Your task to perform on an android device: Go to Yahoo.com Image 0: 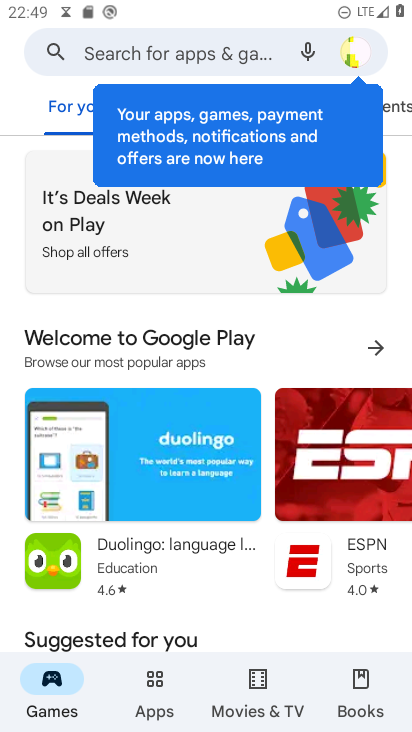
Step 0: press home button
Your task to perform on an android device: Go to Yahoo.com Image 1: 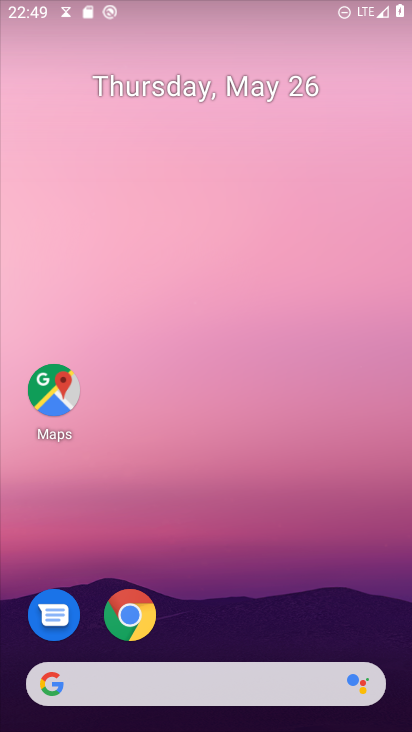
Step 1: click (242, 326)
Your task to perform on an android device: Go to Yahoo.com Image 2: 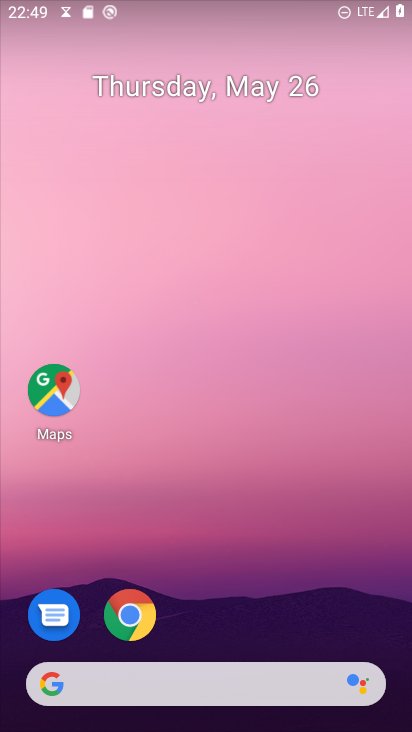
Step 2: drag from (224, 263) to (204, 337)
Your task to perform on an android device: Go to Yahoo.com Image 3: 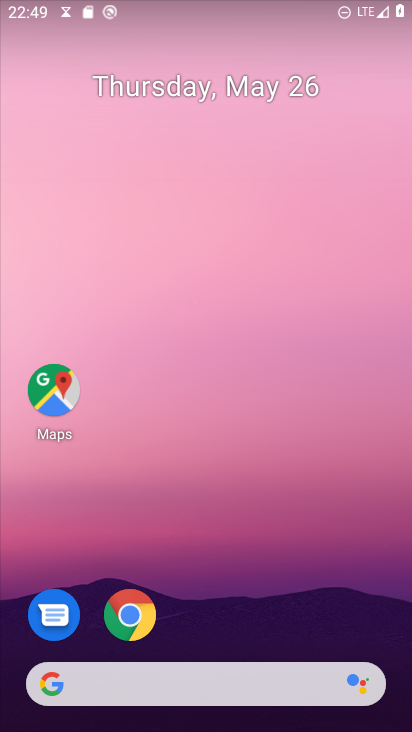
Step 3: drag from (162, 644) to (174, 452)
Your task to perform on an android device: Go to Yahoo.com Image 4: 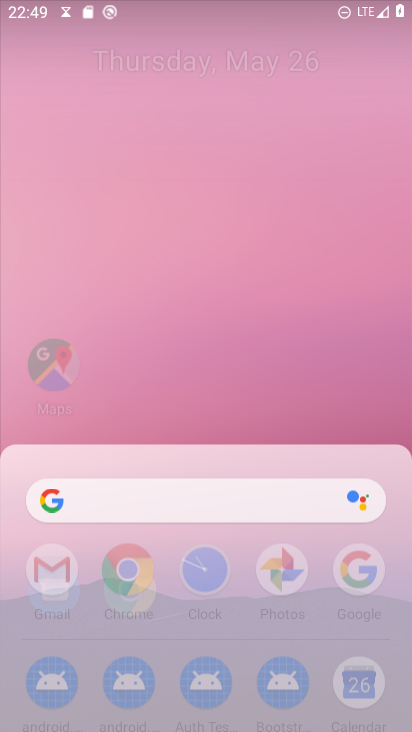
Step 4: drag from (190, 604) to (251, 317)
Your task to perform on an android device: Go to Yahoo.com Image 5: 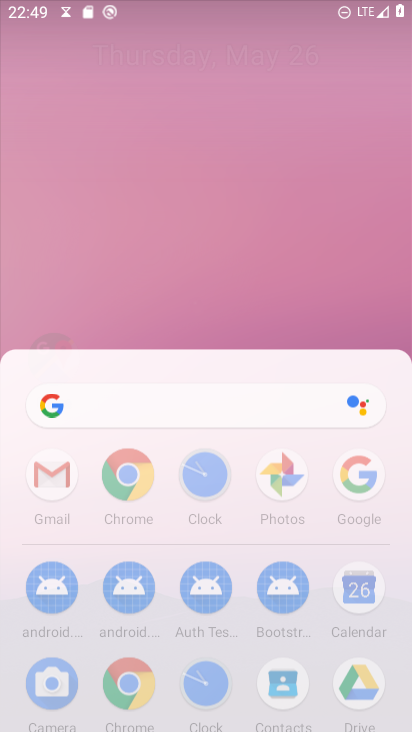
Step 5: drag from (242, 595) to (232, 253)
Your task to perform on an android device: Go to Yahoo.com Image 6: 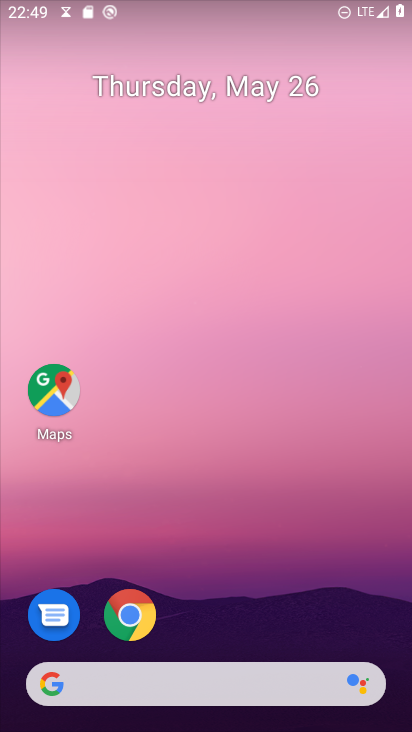
Step 6: drag from (190, 691) to (257, 221)
Your task to perform on an android device: Go to Yahoo.com Image 7: 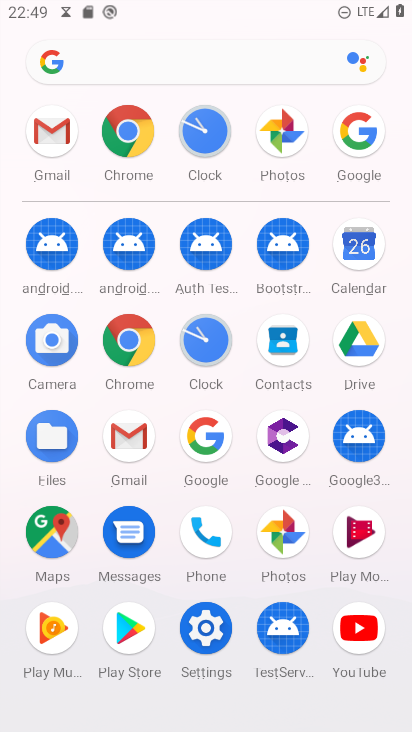
Step 7: click (127, 129)
Your task to perform on an android device: Go to Yahoo.com Image 8: 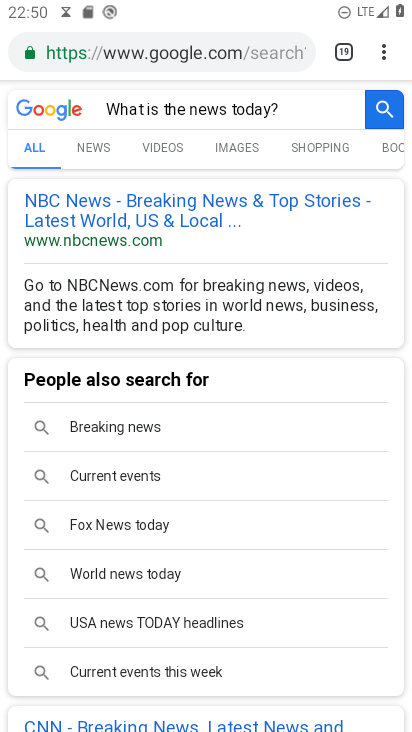
Step 8: click (389, 43)
Your task to perform on an android device: Go to Yahoo.com Image 9: 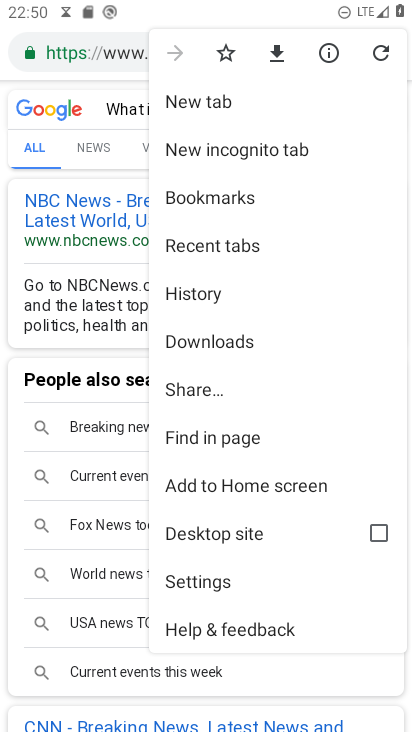
Step 9: click (183, 100)
Your task to perform on an android device: Go to Yahoo.com Image 10: 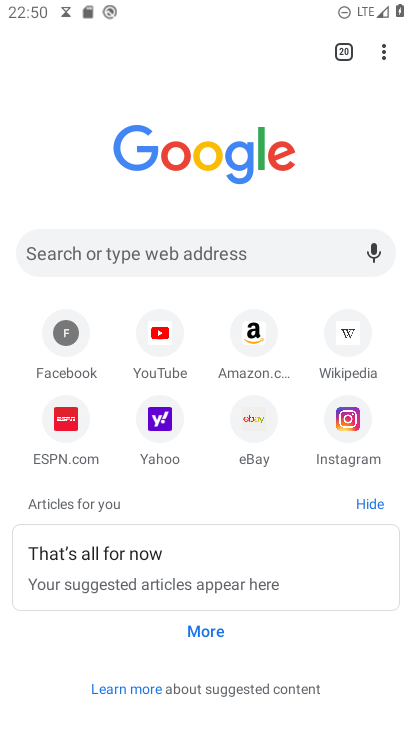
Step 10: click (156, 419)
Your task to perform on an android device: Go to Yahoo.com Image 11: 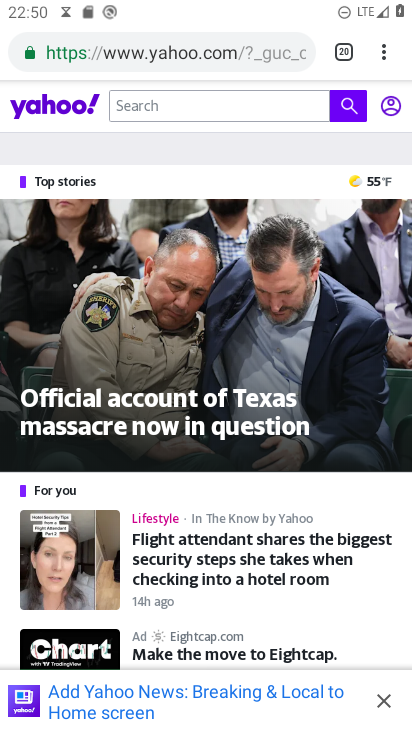
Step 11: task complete